Your task to perform on an android device: open app "Move to iOS" (install if not already installed) Image 0: 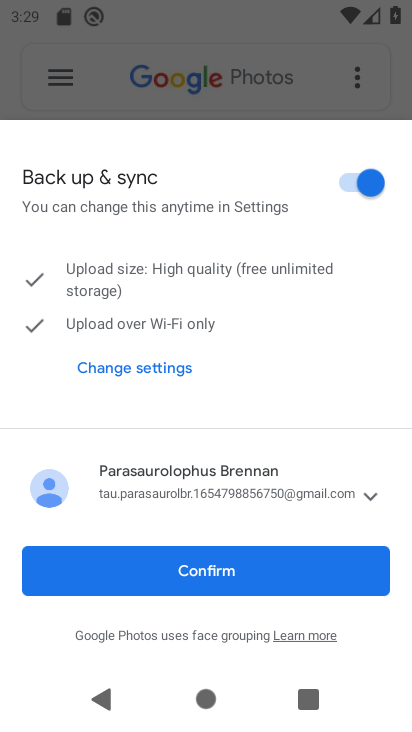
Step 0: press home button
Your task to perform on an android device: open app "Move to iOS" (install if not already installed) Image 1: 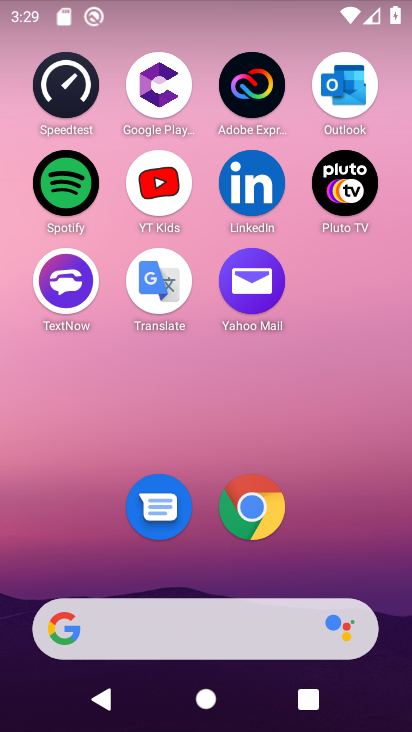
Step 1: drag from (216, 638) to (222, 57)
Your task to perform on an android device: open app "Move to iOS" (install if not already installed) Image 2: 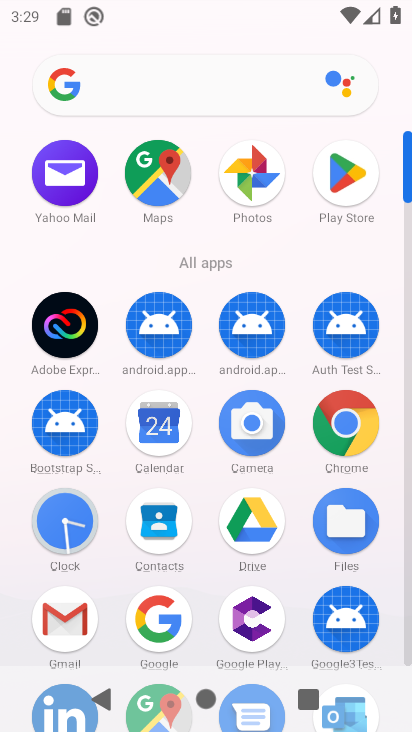
Step 2: click (349, 181)
Your task to perform on an android device: open app "Move to iOS" (install if not already installed) Image 3: 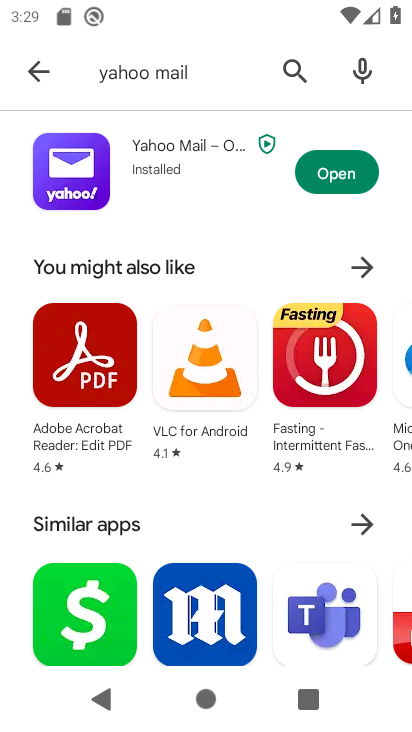
Step 3: press back button
Your task to perform on an android device: open app "Move to iOS" (install if not already installed) Image 4: 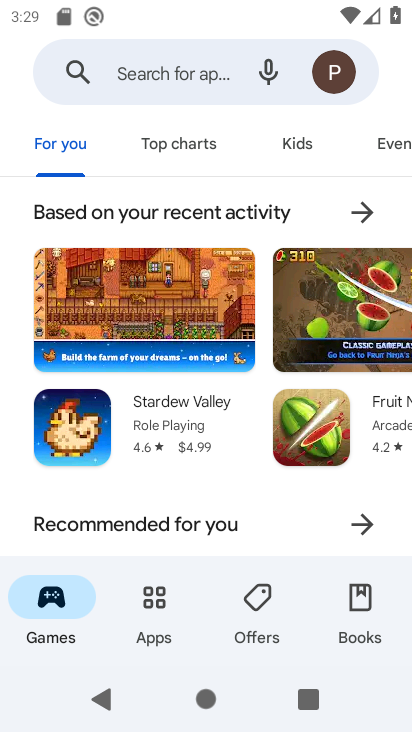
Step 4: click (164, 69)
Your task to perform on an android device: open app "Move to iOS" (install if not already installed) Image 5: 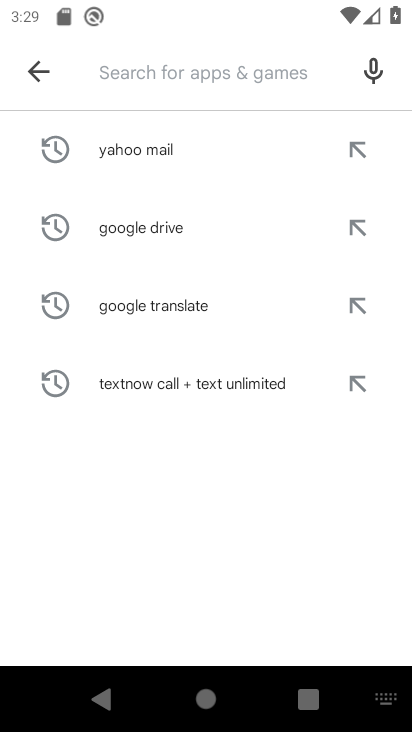
Step 5: type "Move to iOS"
Your task to perform on an android device: open app "Move to iOS" (install if not already installed) Image 6: 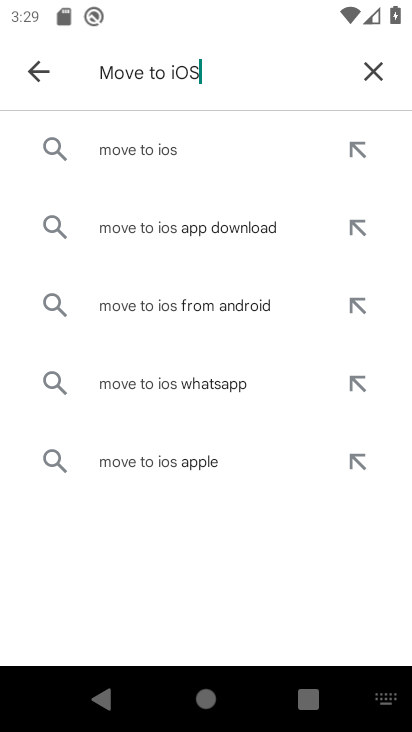
Step 6: click (164, 151)
Your task to perform on an android device: open app "Move to iOS" (install if not already installed) Image 7: 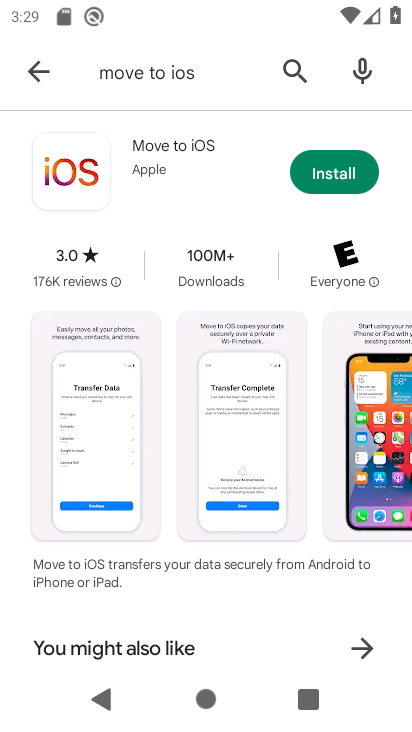
Step 7: click (337, 174)
Your task to perform on an android device: open app "Move to iOS" (install if not already installed) Image 8: 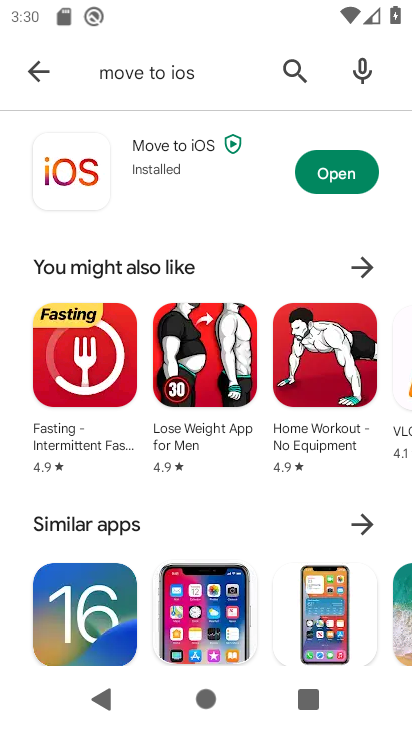
Step 8: click (337, 174)
Your task to perform on an android device: open app "Move to iOS" (install if not already installed) Image 9: 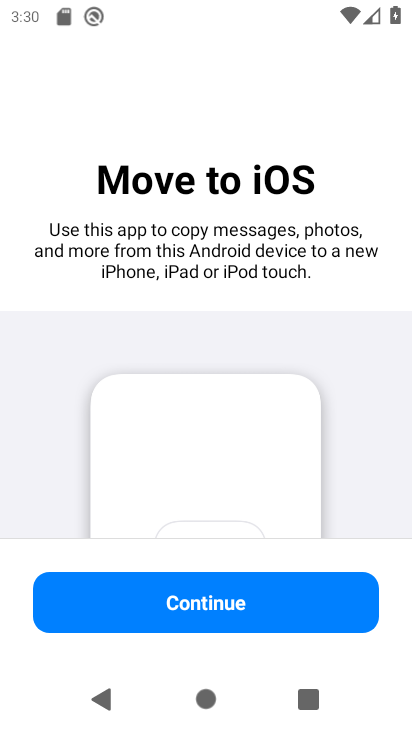
Step 9: task complete